Your task to perform on an android device: Go to Wikipedia Image 0: 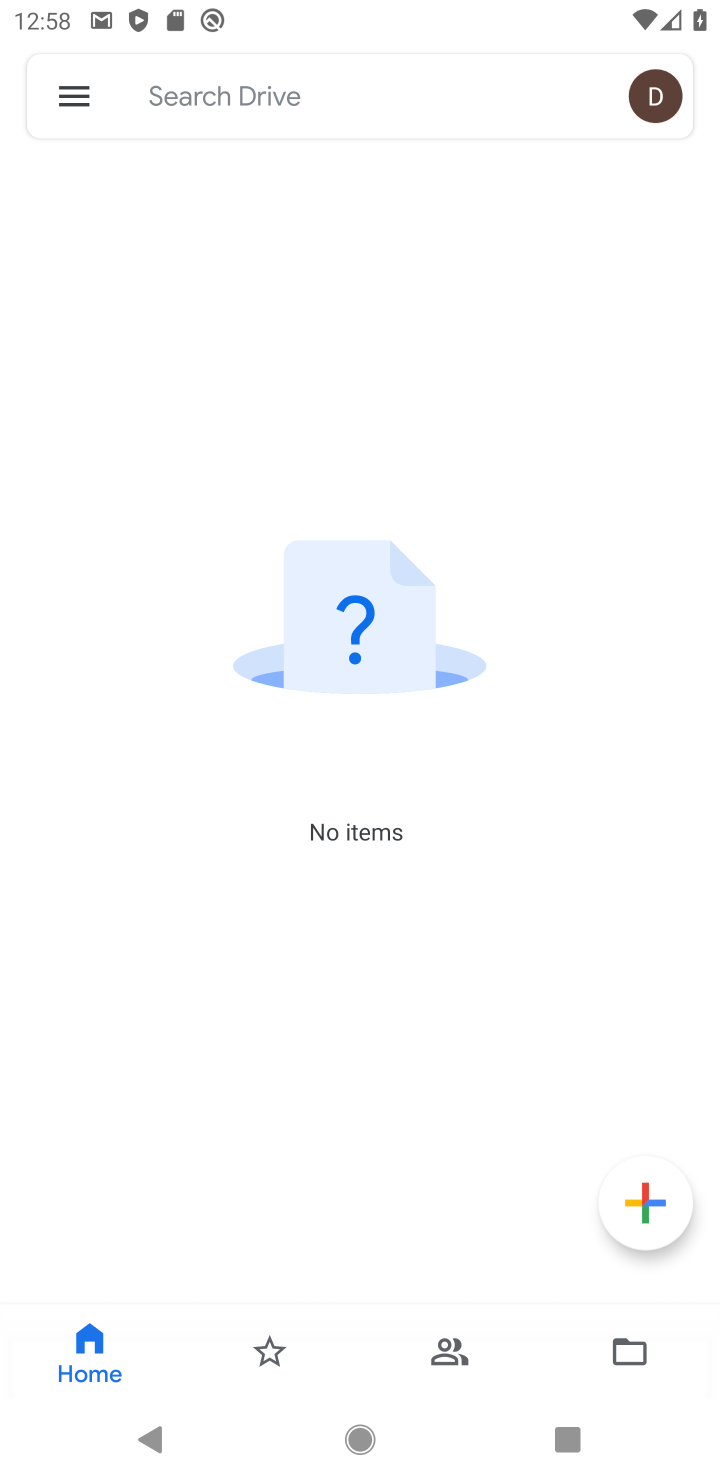
Step 0: press home button
Your task to perform on an android device: Go to Wikipedia Image 1: 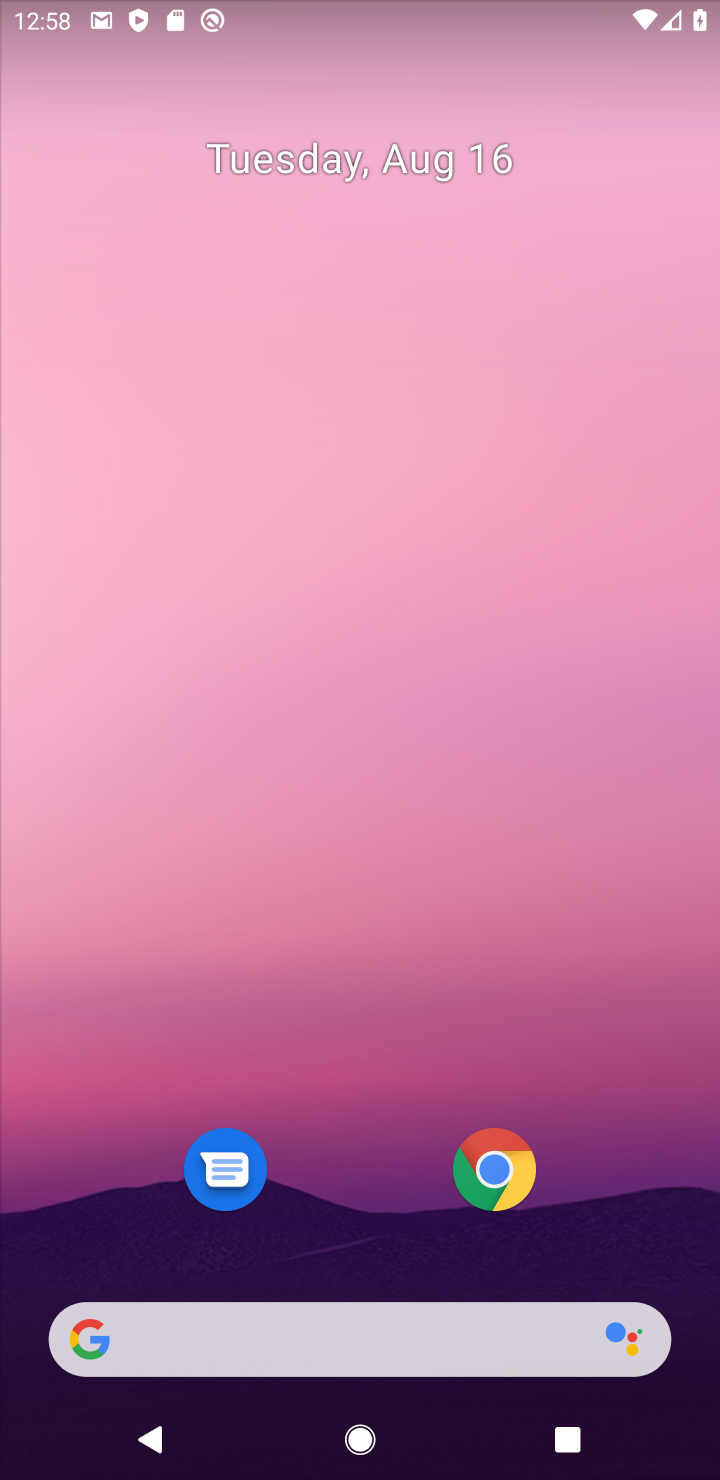
Step 1: click (190, 1307)
Your task to perform on an android device: Go to Wikipedia Image 2: 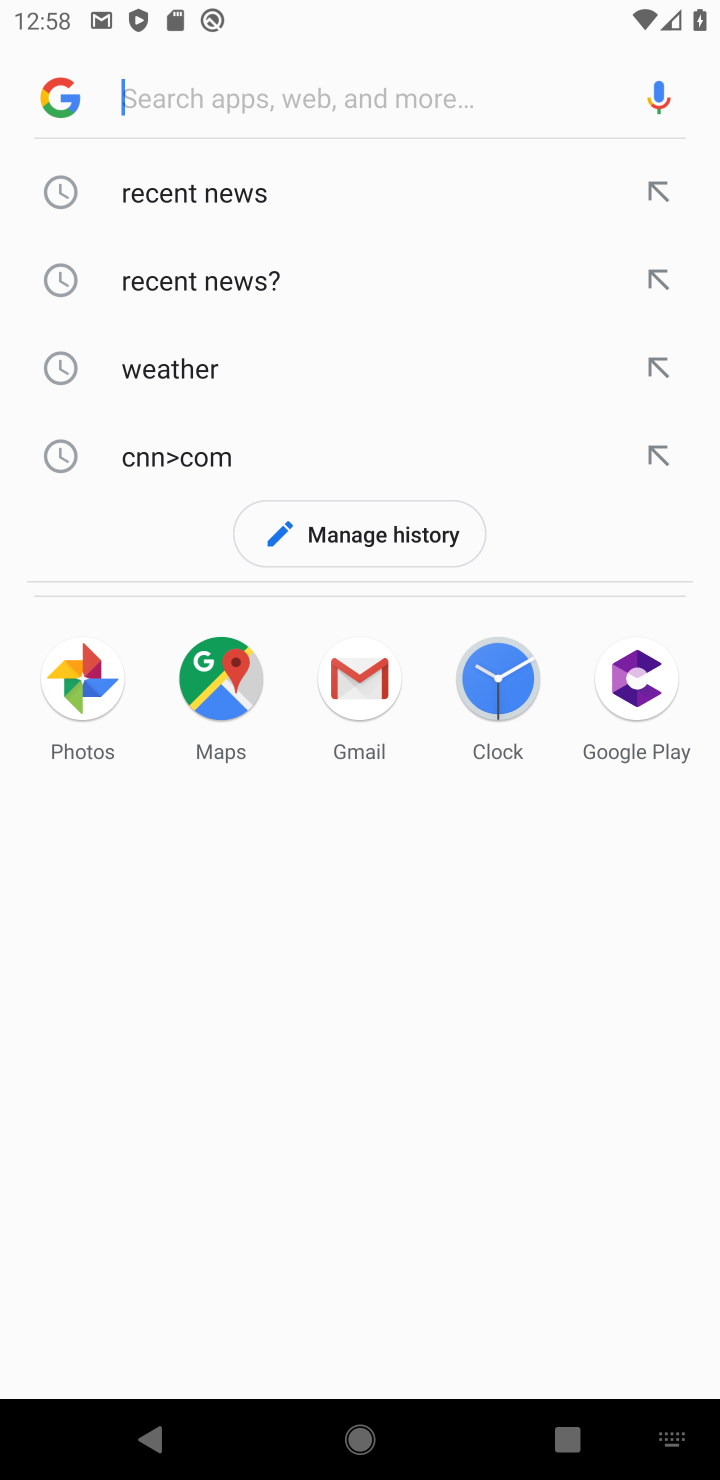
Step 2: type "Wikipedia"
Your task to perform on an android device: Go to Wikipedia Image 3: 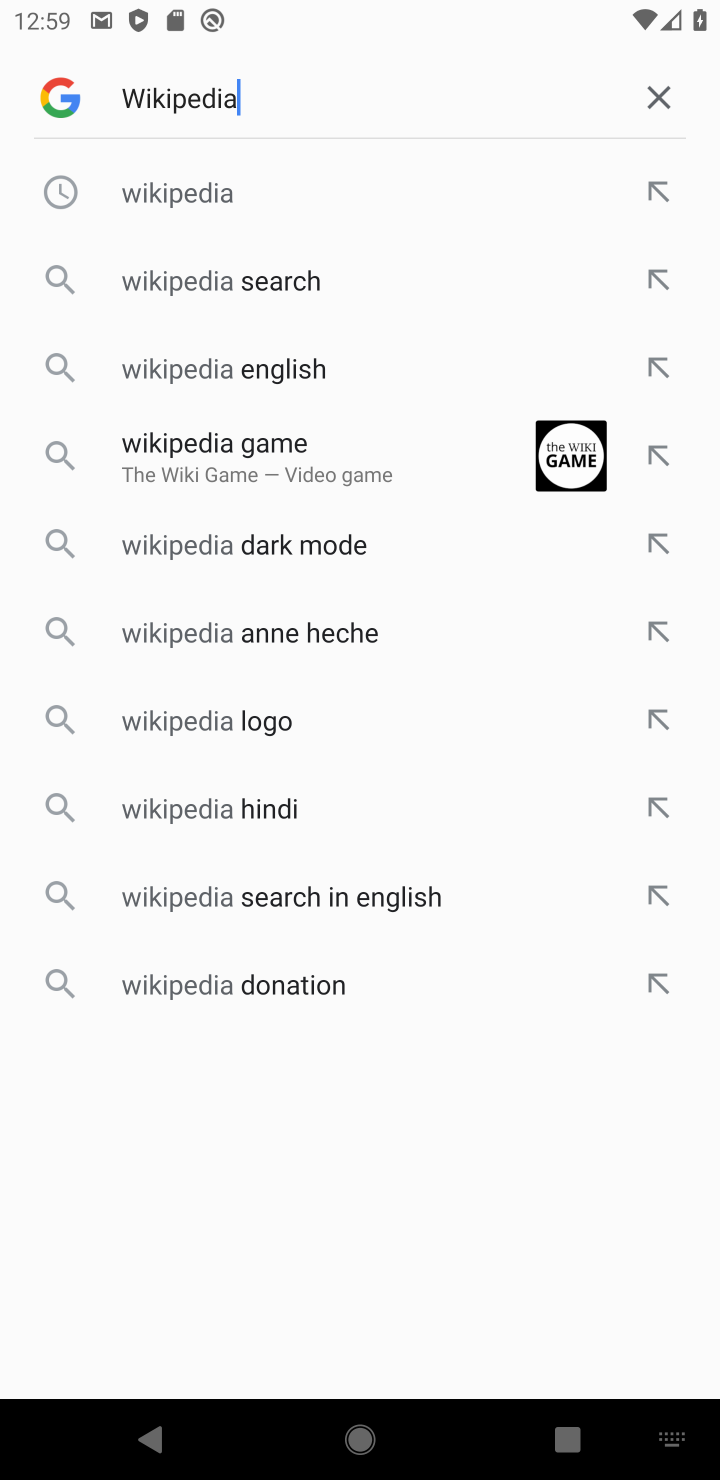
Step 3: click (181, 185)
Your task to perform on an android device: Go to Wikipedia Image 4: 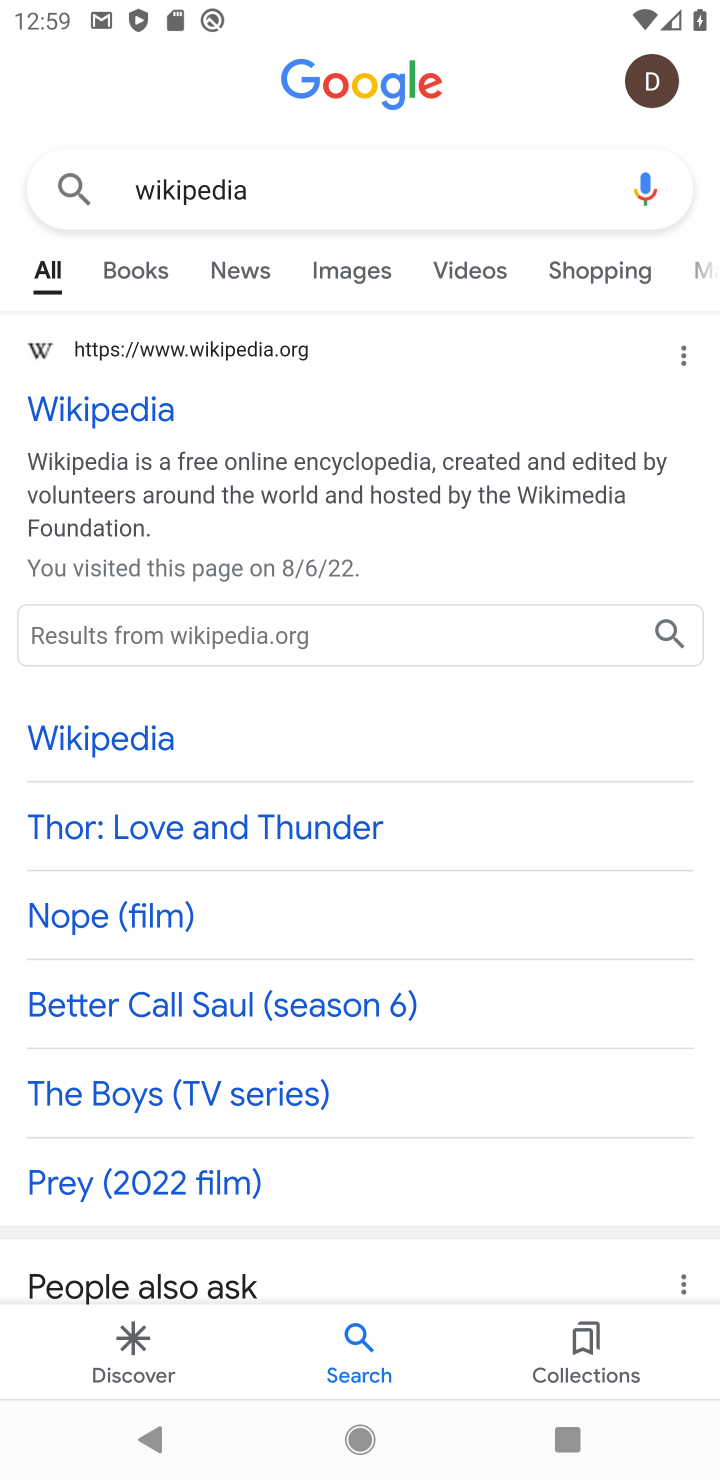
Step 4: task complete